Your task to perform on an android device: Go to accessibility settings Image 0: 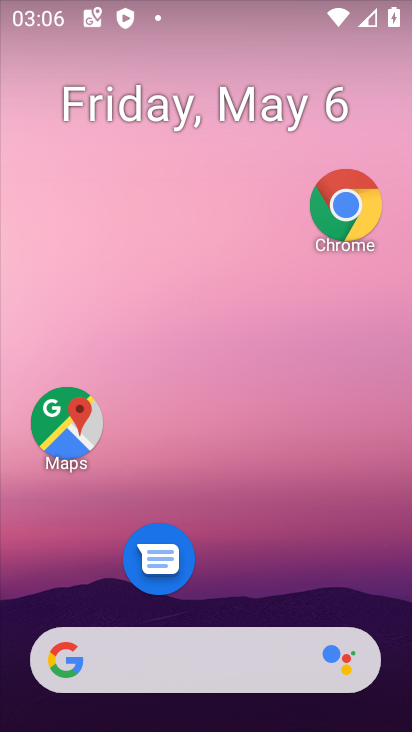
Step 0: drag from (206, 617) to (337, 87)
Your task to perform on an android device: Go to accessibility settings Image 1: 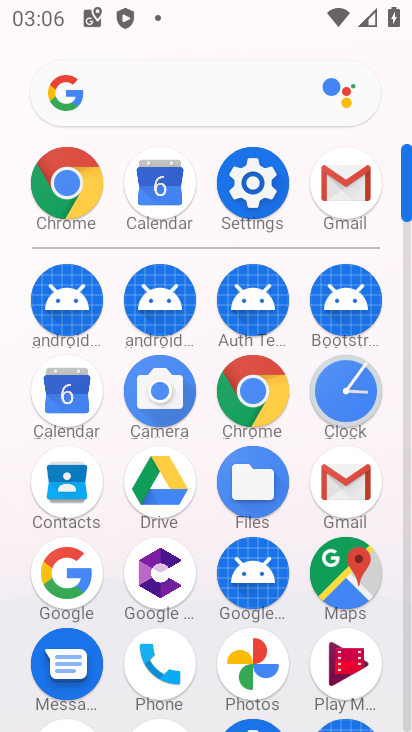
Step 1: click (266, 174)
Your task to perform on an android device: Go to accessibility settings Image 2: 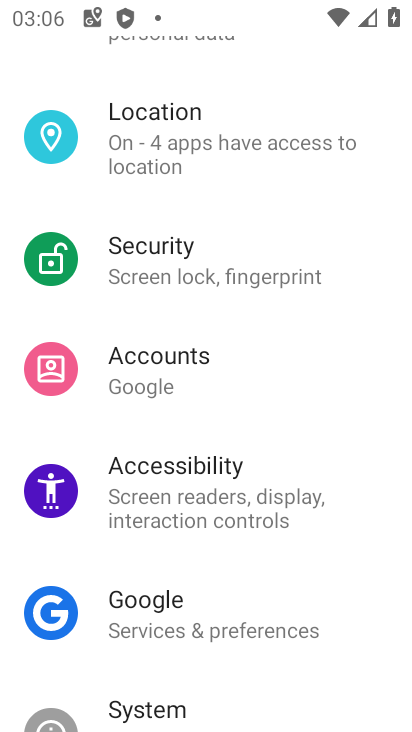
Step 2: click (221, 484)
Your task to perform on an android device: Go to accessibility settings Image 3: 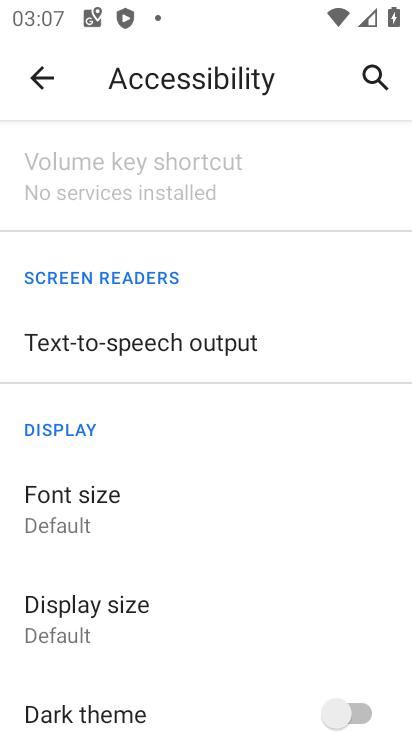
Step 3: task complete